Your task to perform on an android device: Go to notification settings Image 0: 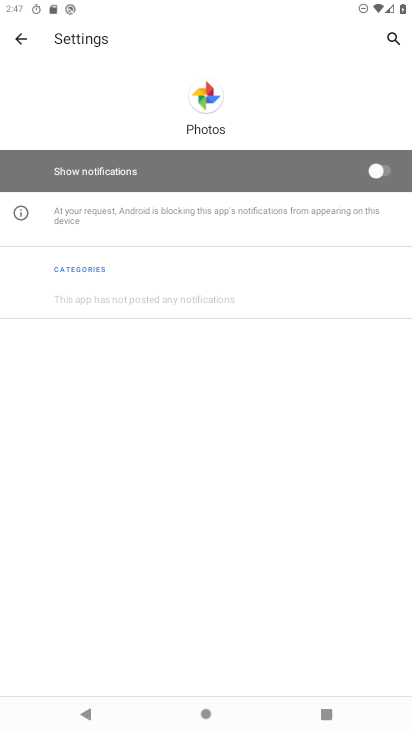
Step 0: task impossible